Your task to perform on an android device: find snoozed emails in the gmail app Image 0: 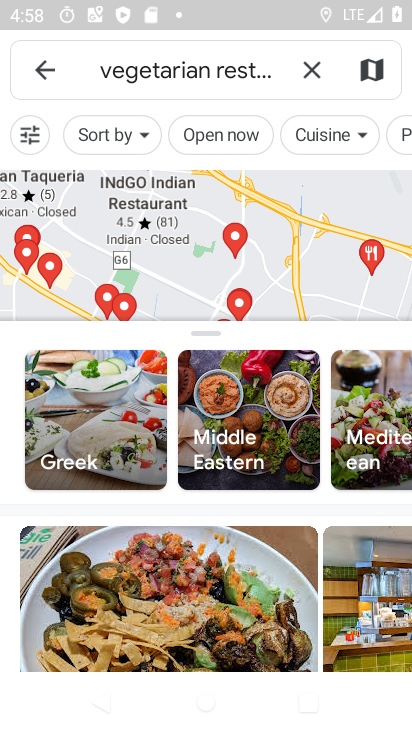
Step 0: press home button
Your task to perform on an android device: find snoozed emails in the gmail app Image 1: 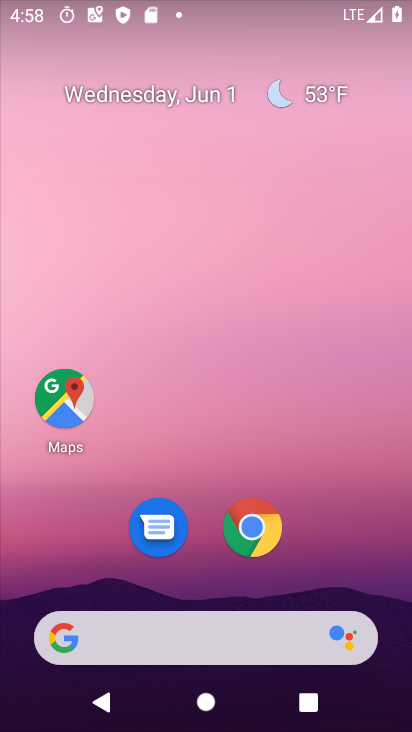
Step 1: drag from (340, 579) to (382, 80)
Your task to perform on an android device: find snoozed emails in the gmail app Image 2: 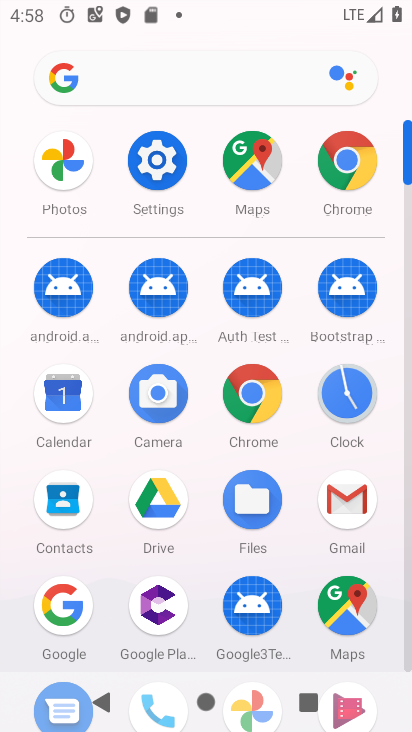
Step 2: click (350, 502)
Your task to perform on an android device: find snoozed emails in the gmail app Image 3: 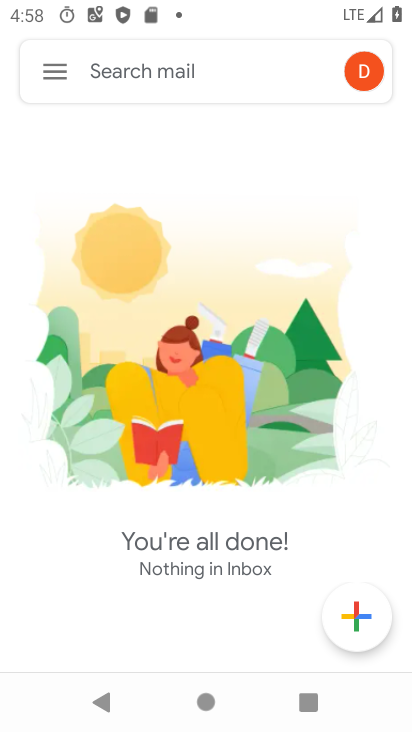
Step 3: click (58, 76)
Your task to perform on an android device: find snoozed emails in the gmail app Image 4: 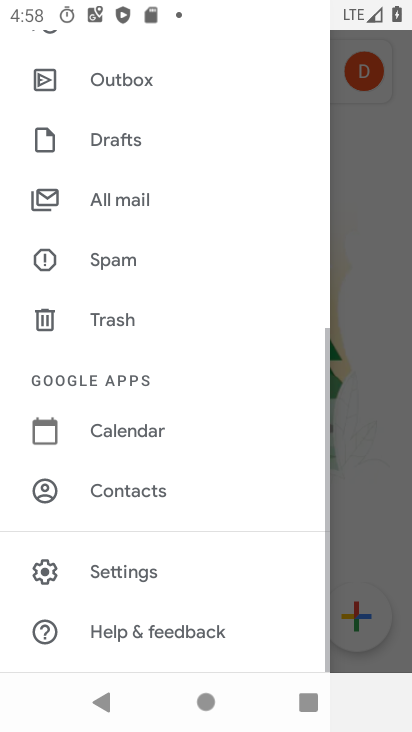
Step 4: drag from (216, 201) to (207, 504)
Your task to perform on an android device: find snoozed emails in the gmail app Image 5: 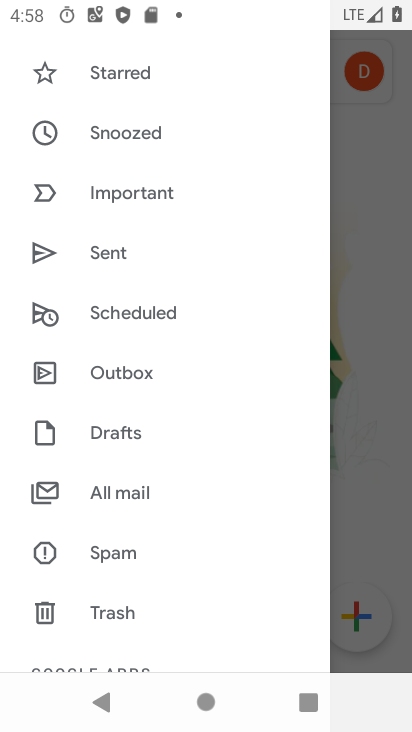
Step 5: click (129, 128)
Your task to perform on an android device: find snoozed emails in the gmail app Image 6: 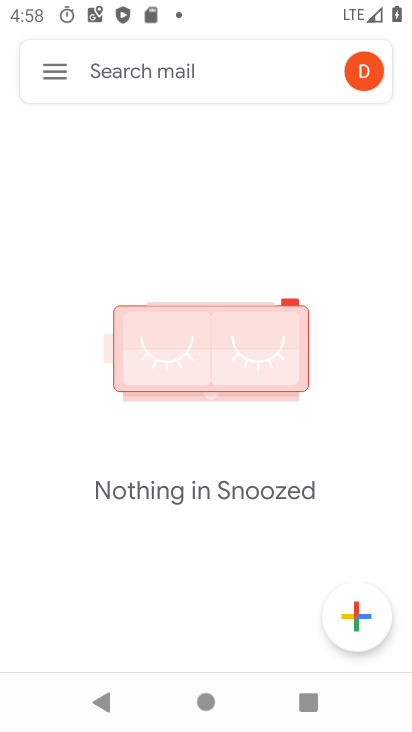
Step 6: task complete